Your task to perform on an android device: Show me recent news Image 0: 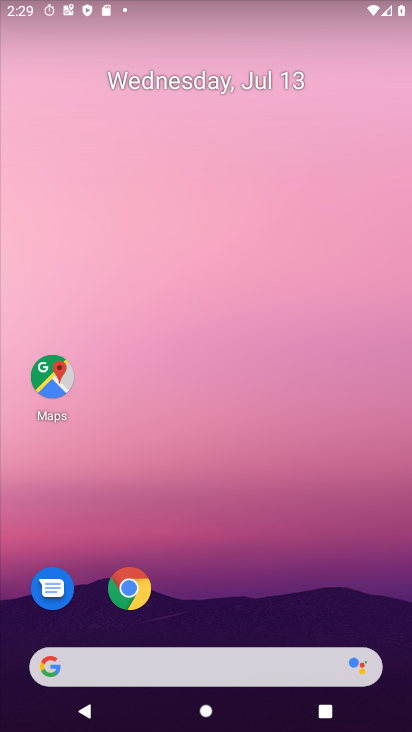
Step 0: drag from (174, 663) to (231, 176)
Your task to perform on an android device: Show me recent news Image 1: 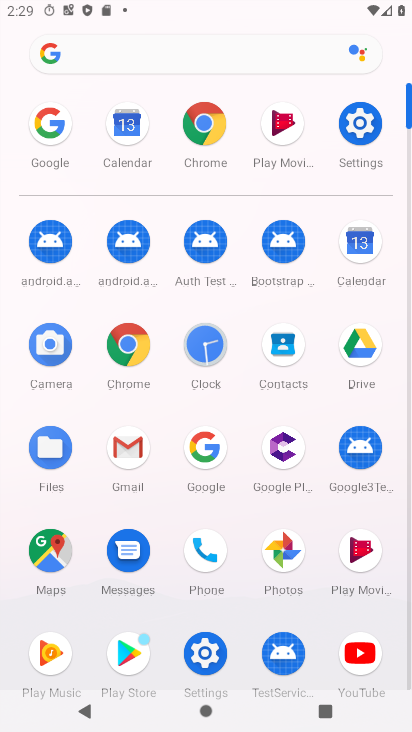
Step 1: click (193, 448)
Your task to perform on an android device: Show me recent news Image 2: 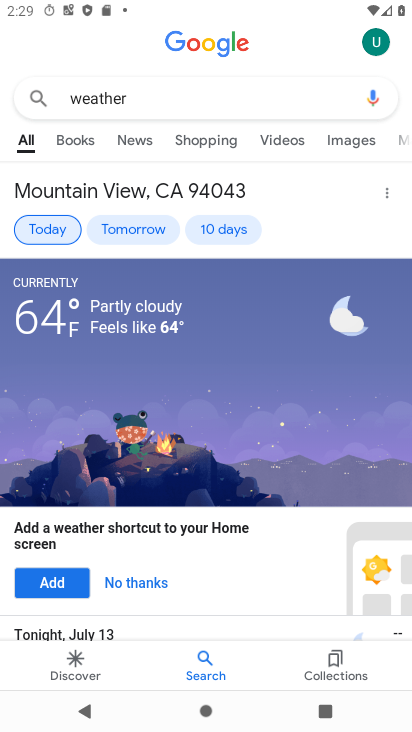
Step 2: click (140, 105)
Your task to perform on an android device: Show me recent news Image 3: 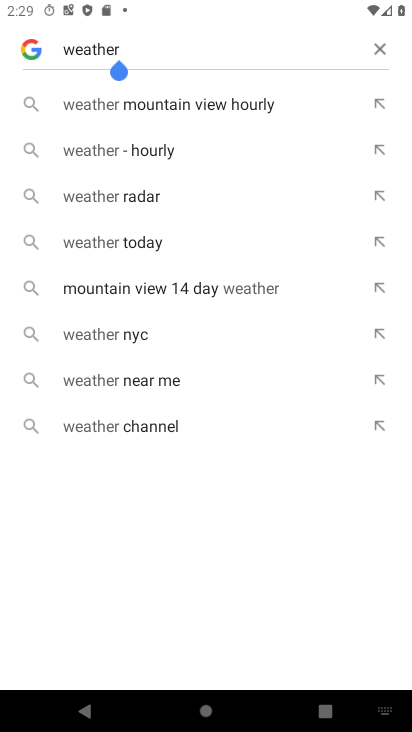
Step 3: click (377, 51)
Your task to perform on an android device: Show me recent news Image 4: 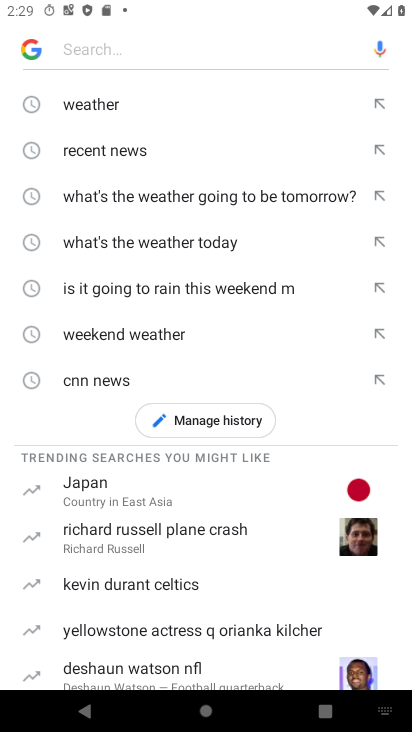
Step 4: click (126, 157)
Your task to perform on an android device: Show me recent news Image 5: 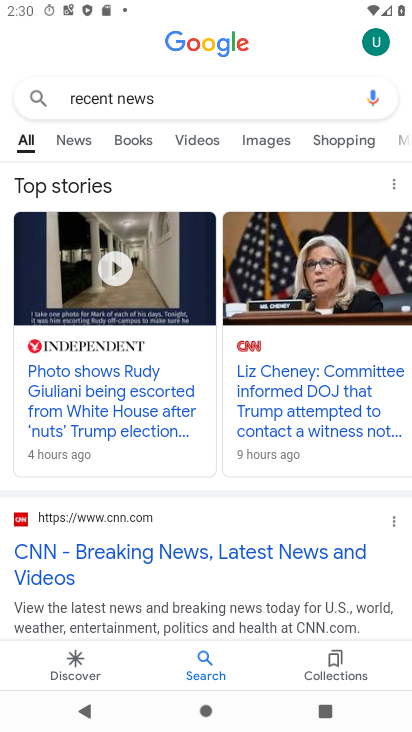
Step 5: task complete